Your task to perform on an android device: allow notifications from all sites in the chrome app Image 0: 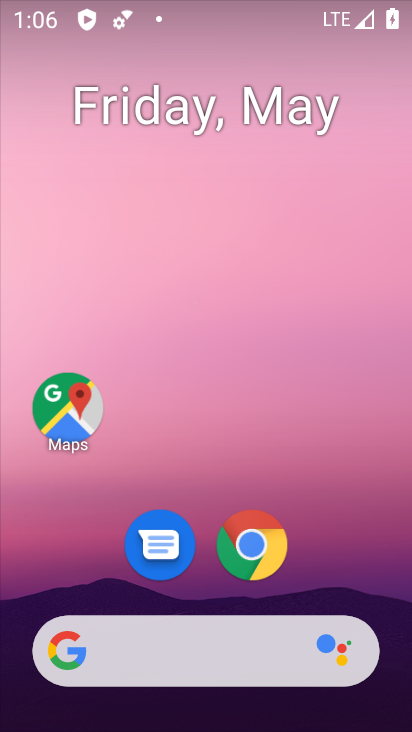
Step 0: click (269, 544)
Your task to perform on an android device: allow notifications from all sites in the chrome app Image 1: 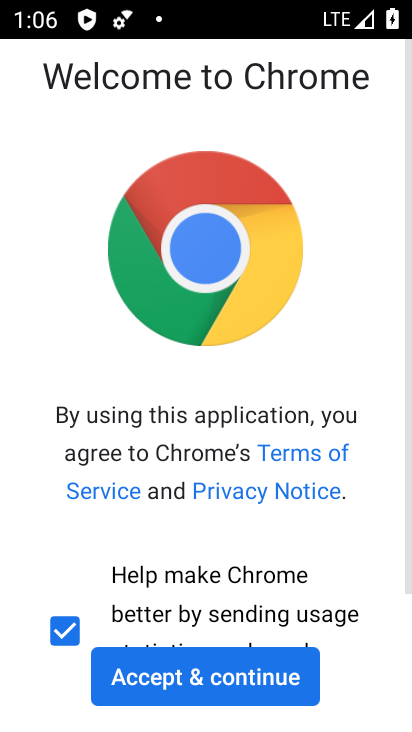
Step 1: click (264, 671)
Your task to perform on an android device: allow notifications from all sites in the chrome app Image 2: 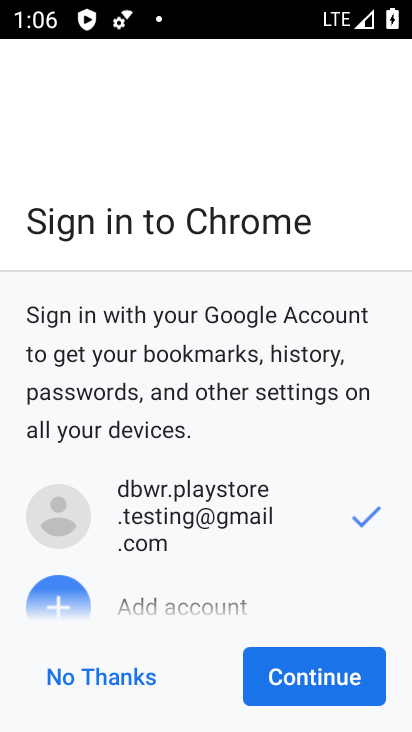
Step 2: click (371, 678)
Your task to perform on an android device: allow notifications from all sites in the chrome app Image 3: 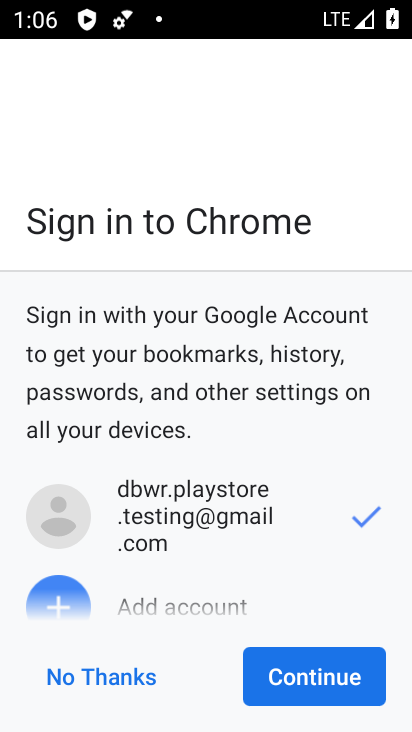
Step 3: click (369, 675)
Your task to perform on an android device: allow notifications from all sites in the chrome app Image 4: 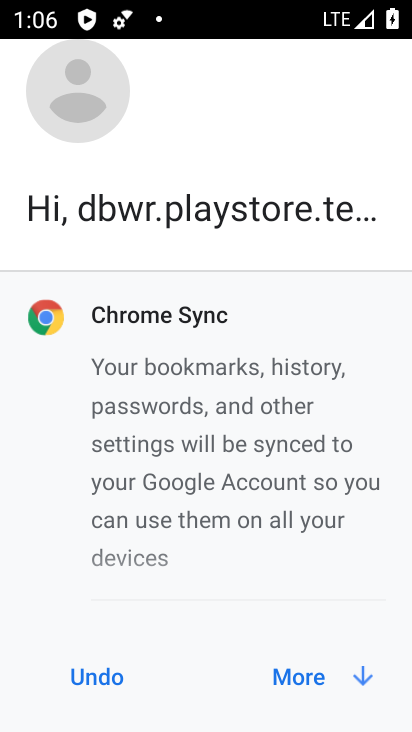
Step 4: click (369, 675)
Your task to perform on an android device: allow notifications from all sites in the chrome app Image 5: 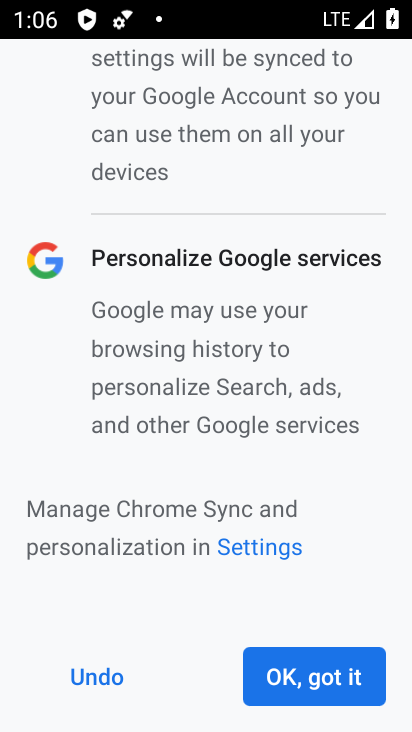
Step 5: click (369, 675)
Your task to perform on an android device: allow notifications from all sites in the chrome app Image 6: 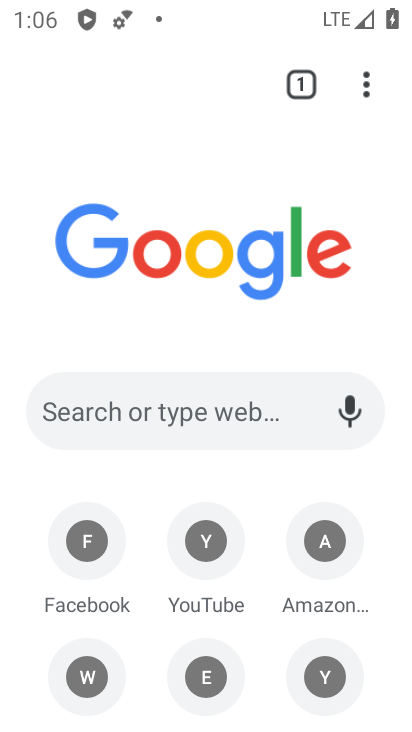
Step 6: click (372, 81)
Your task to perform on an android device: allow notifications from all sites in the chrome app Image 7: 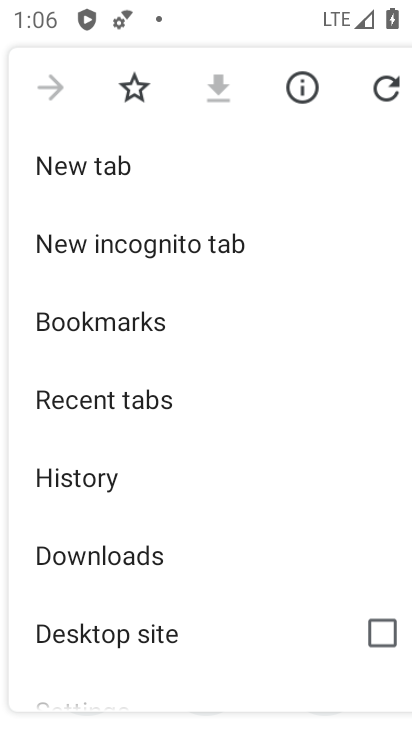
Step 7: drag from (163, 614) to (180, 234)
Your task to perform on an android device: allow notifications from all sites in the chrome app Image 8: 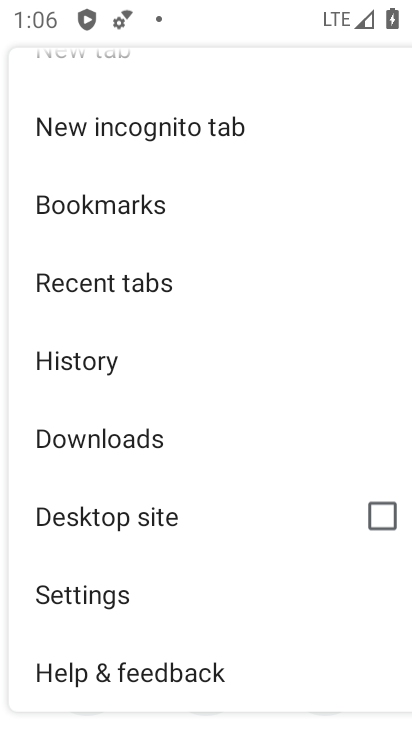
Step 8: click (157, 598)
Your task to perform on an android device: allow notifications from all sites in the chrome app Image 9: 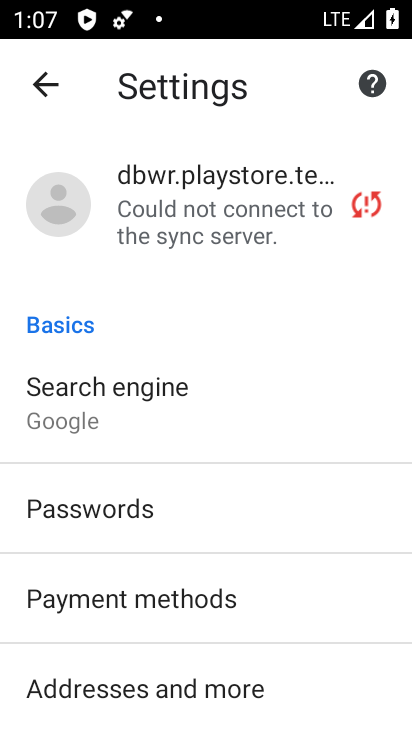
Step 9: drag from (210, 585) to (237, 144)
Your task to perform on an android device: allow notifications from all sites in the chrome app Image 10: 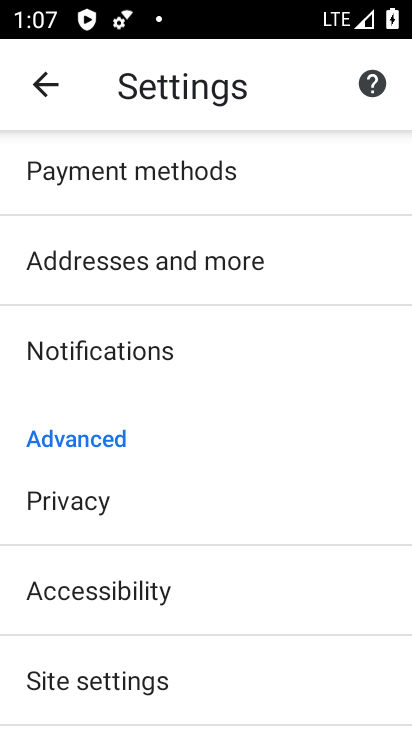
Step 10: click (226, 670)
Your task to perform on an android device: allow notifications from all sites in the chrome app Image 11: 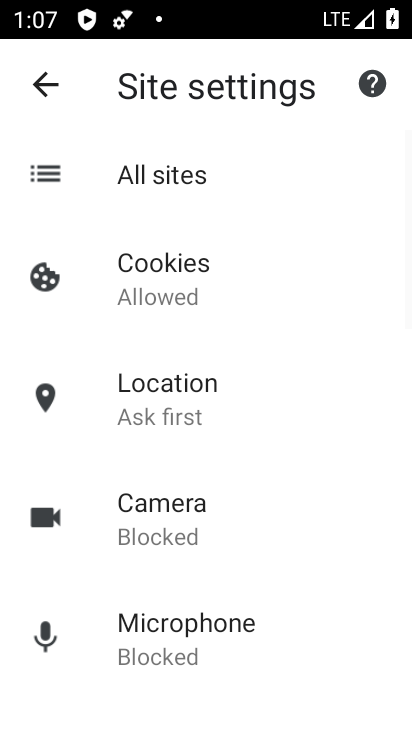
Step 11: click (218, 171)
Your task to perform on an android device: allow notifications from all sites in the chrome app Image 12: 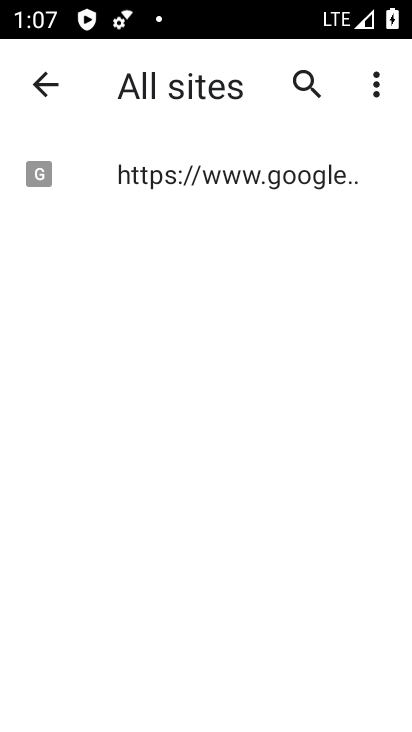
Step 12: click (232, 166)
Your task to perform on an android device: allow notifications from all sites in the chrome app Image 13: 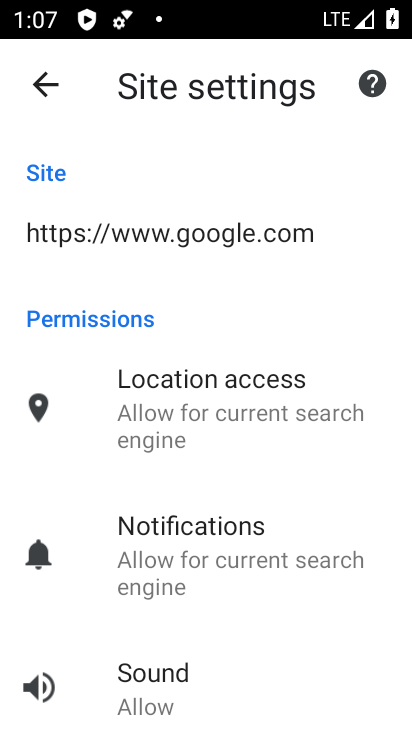
Step 13: click (221, 370)
Your task to perform on an android device: allow notifications from all sites in the chrome app Image 14: 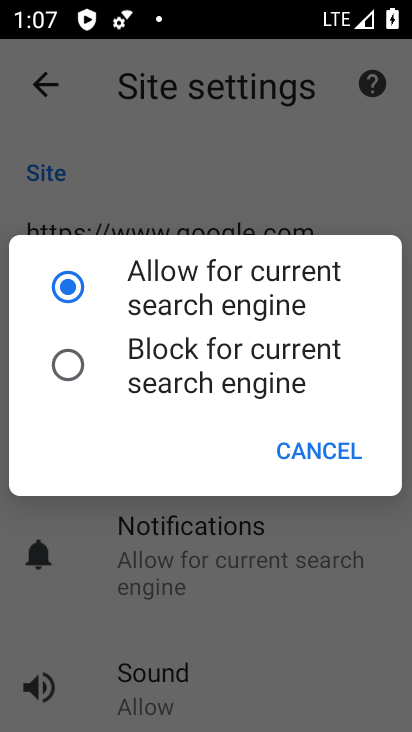
Step 14: click (319, 456)
Your task to perform on an android device: allow notifications from all sites in the chrome app Image 15: 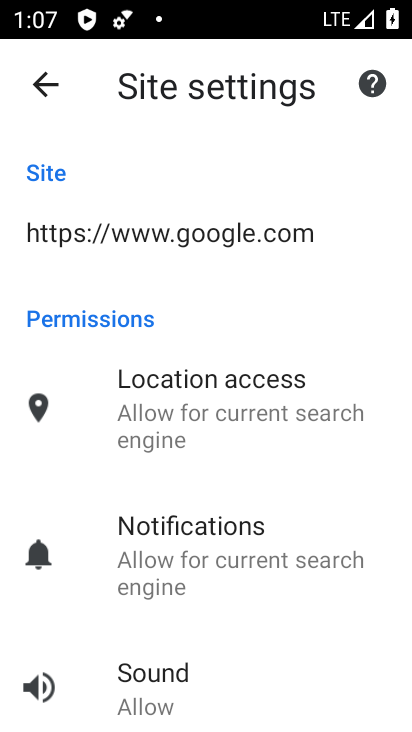
Step 15: click (264, 543)
Your task to perform on an android device: allow notifications from all sites in the chrome app Image 16: 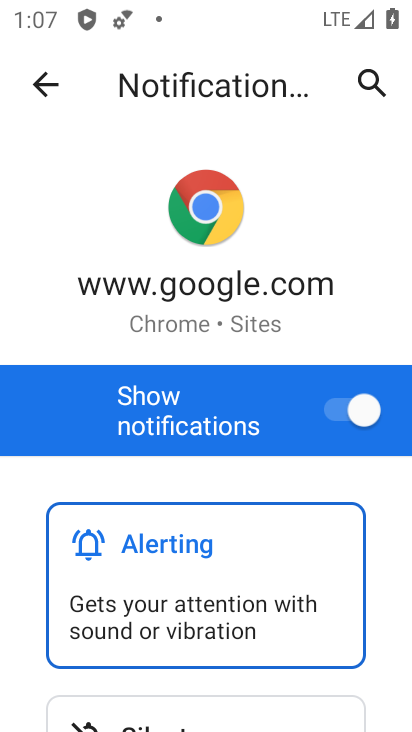
Step 16: task complete